Your task to perform on an android device: turn off notifications settings in the gmail app Image 0: 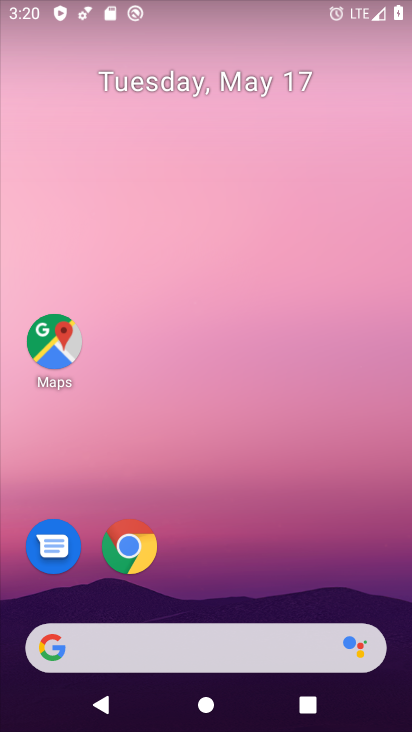
Step 0: press home button
Your task to perform on an android device: turn off notifications settings in the gmail app Image 1: 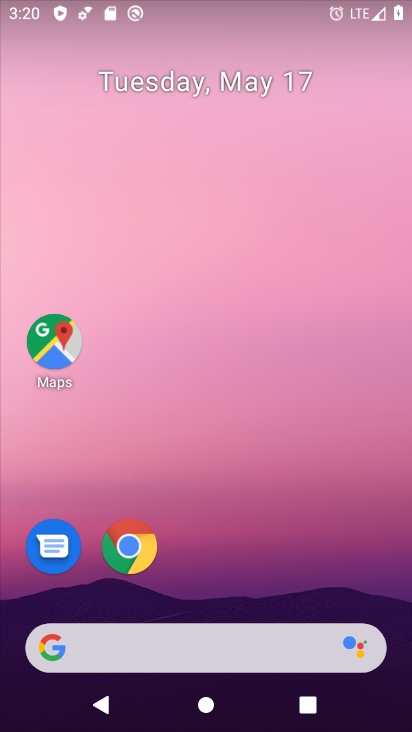
Step 1: drag from (274, 525) to (304, 45)
Your task to perform on an android device: turn off notifications settings in the gmail app Image 2: 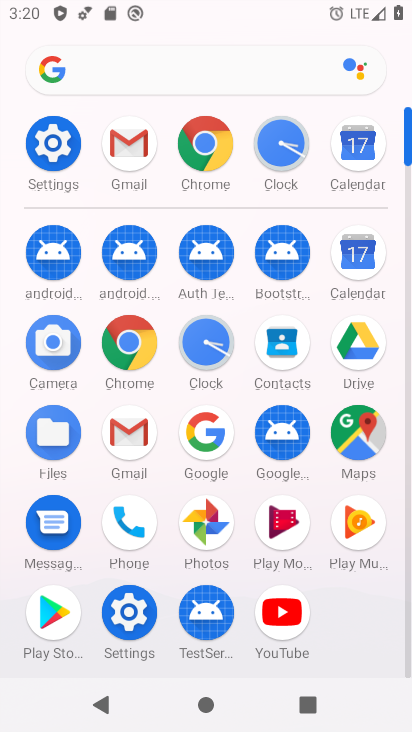
Step 2: click (118, 132)
Your task to perform on an android device: turn off notifications settings in the gmail app Image 3: 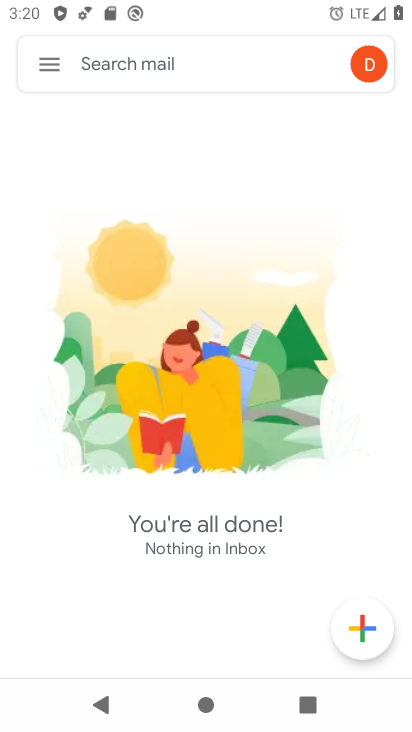
Step 3: press home button
Your task to perform on an android device: turn off notifications settings in the gmail app Image 4: 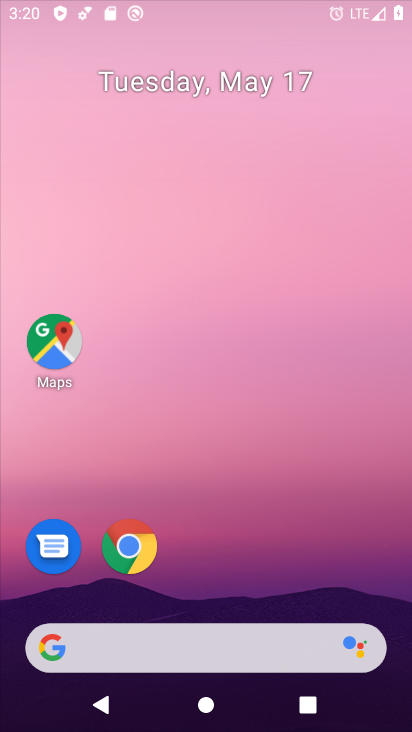
Step 4: drag from (277, 555) to (300, 7)
Your task to perform on an android device: turn off notifications settings in the gmail app Image 5: 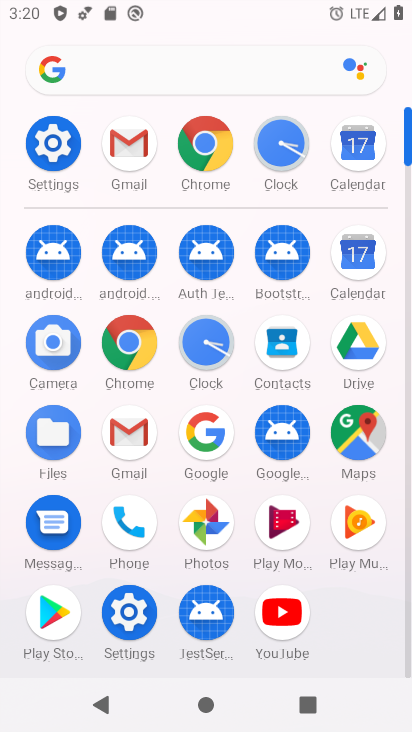
Step 5: click (110, 145)
Your task to perform on an android device: turn off notifications settings in the gmail app Image 6: 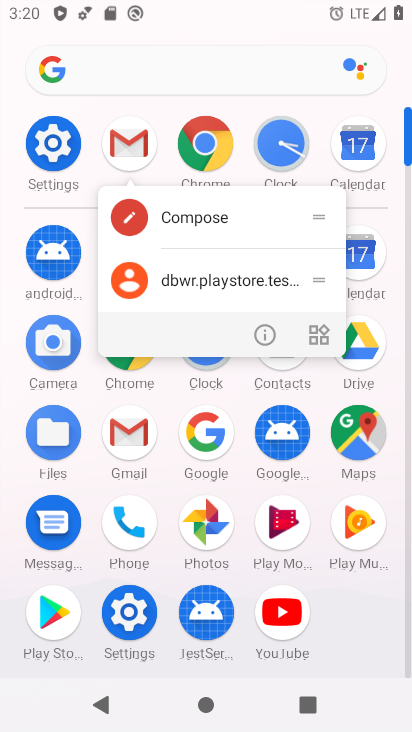
Step 6: click (268, 328)
Your task to perform on an android device: turn off notifications settings in the gmail app Image 7: 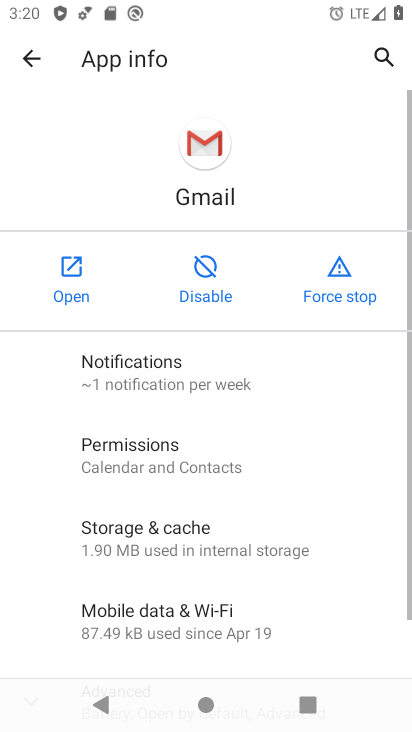
Step 7: click (196, 359)
Your task to perform on an android device: turn off notifications settings in the gmail app Image 8: 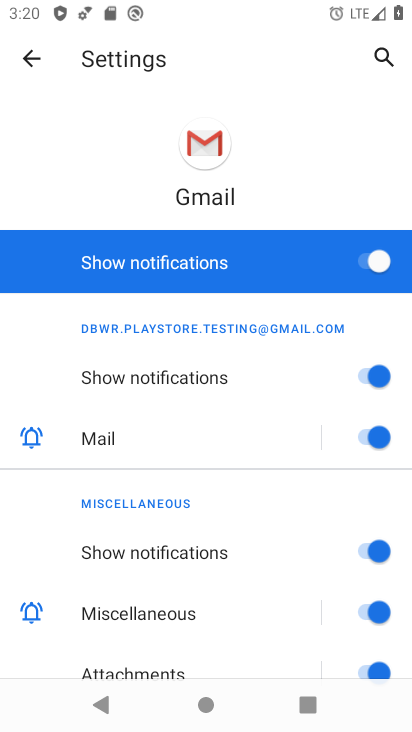
Step 8: click (379, 260)
Your task to perform on an android device: turn off notifications settings in the gmail app Image 9: 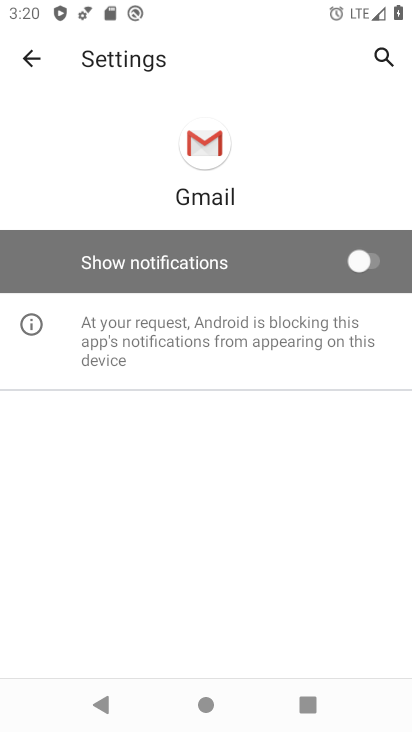
Step 9: task complete